Your task to perform on an android device: Go to Google Image 0: 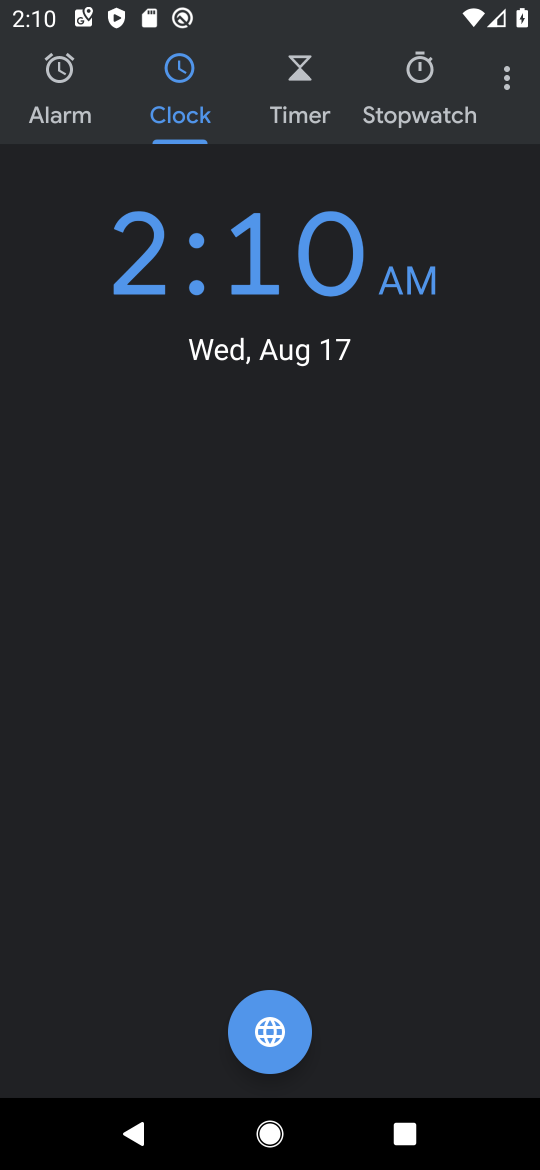
Step 0: press home button
Your task to perform on an android device: Go to Google Image 1: 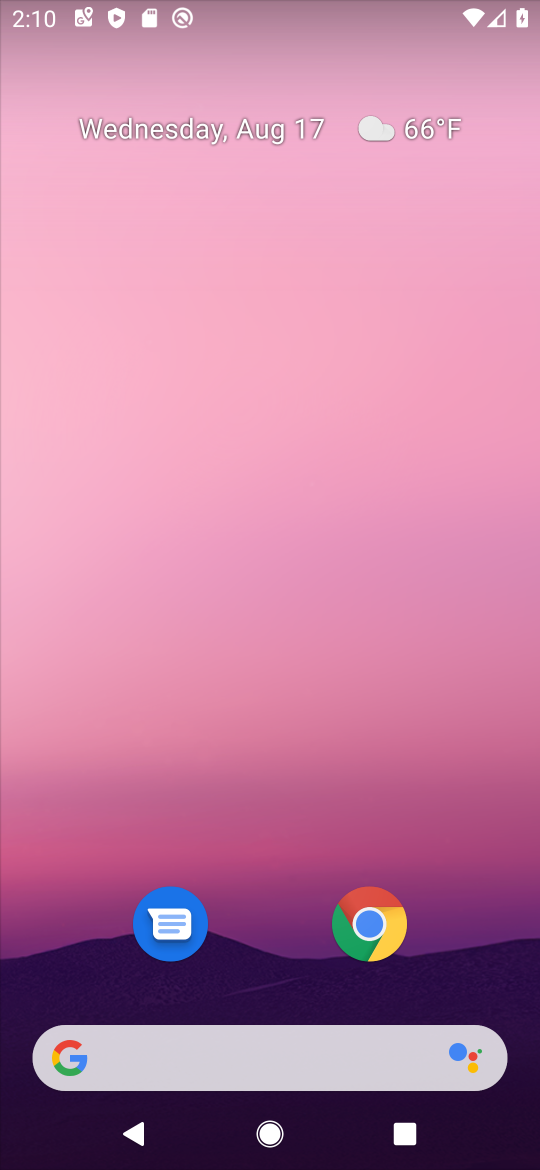
Step 1: drag from (203, 1073) to (222, 290)
Your task to perform on an android device: Go to Google Image 2: 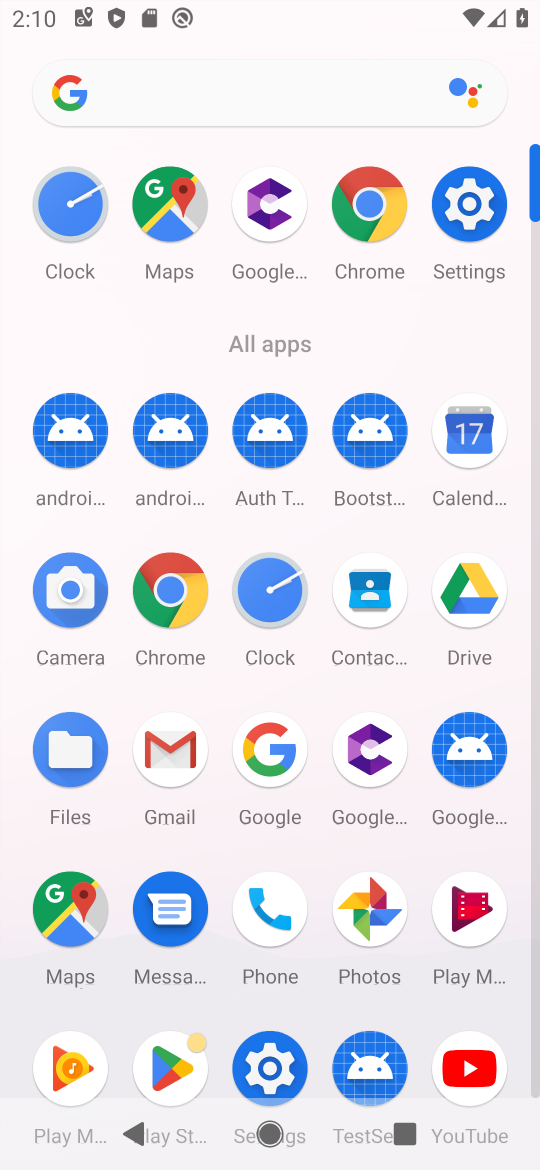
Step 2: click (267, 747)
Your task to perform on an android device: Go to Google Image 3: 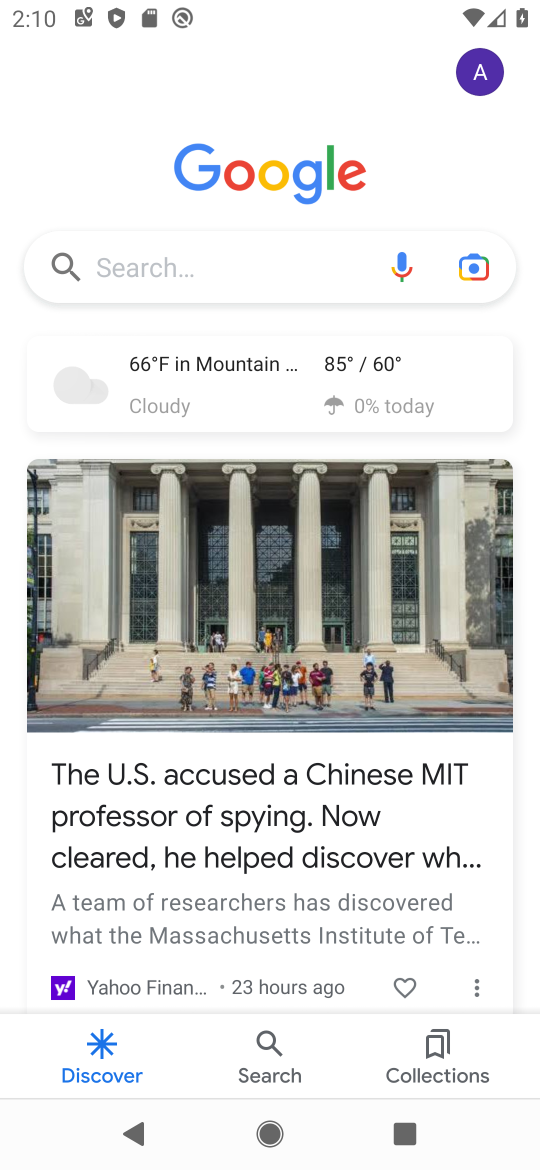
Step 3: task complete